Your task to perform on an android device: Go to wifi settings Image 0: 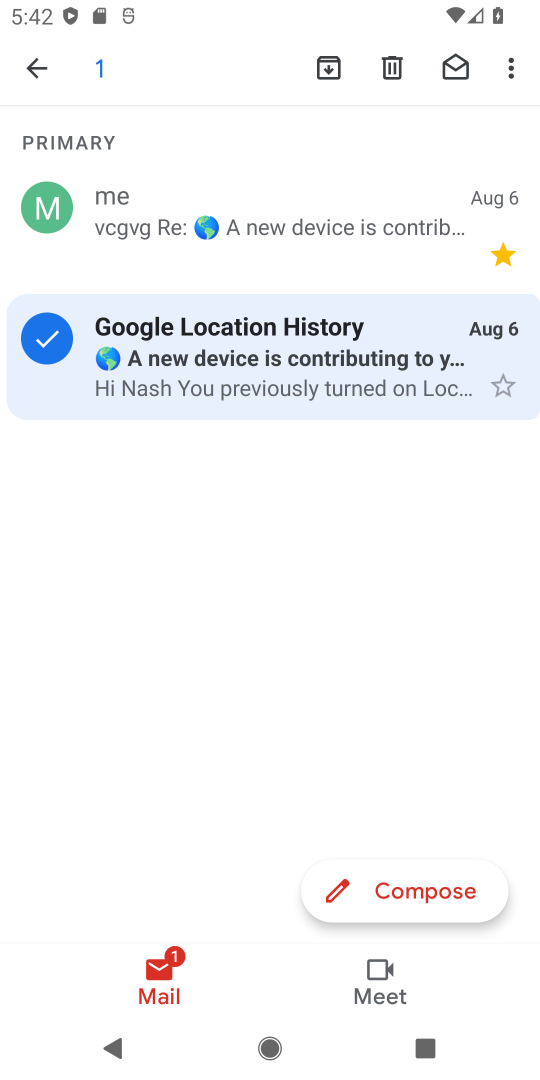
Step 0: press back button
Your task to perform on an android device: Go to wifi settings Image 1: 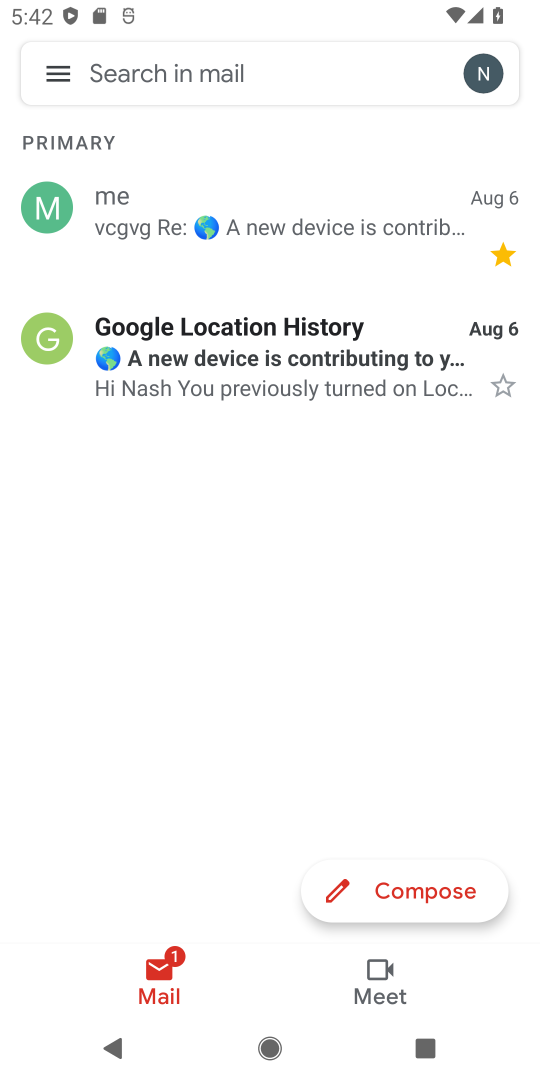
Step 1: press back button
Your task to perform on an android device: Go to wifi settings Image 2: 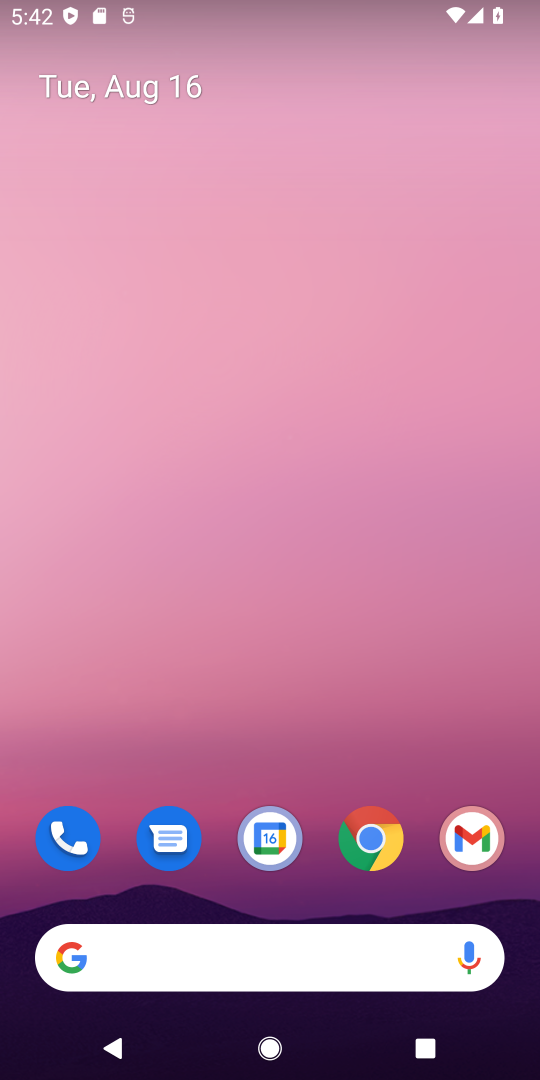
Step 2: drag from (119, 0) to (305, 793)
Your task to perform on an android device: Go to wifi settings Image 3: 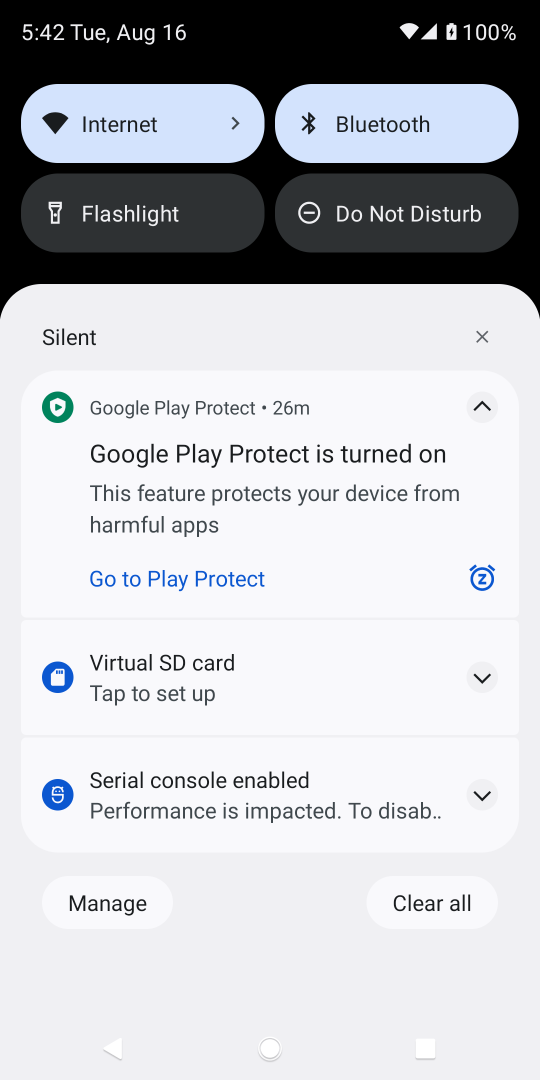
Step 3: click (142, 128)
Your task to perform on an android device: Go to wifi settings Image 4: 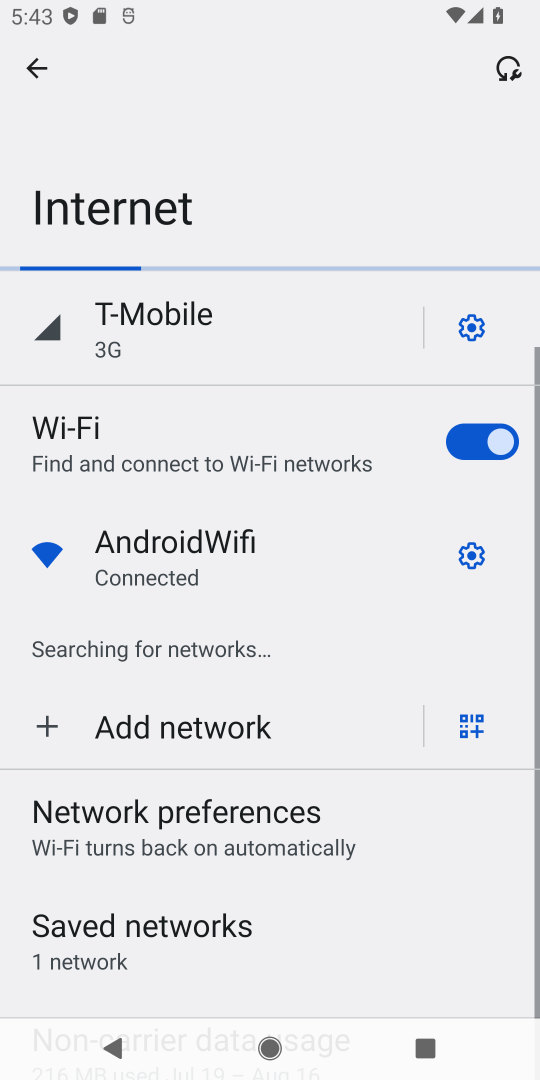
Step 4: task complete